Your task to perform on an android device: snooze an email in the gmail app Image 0: 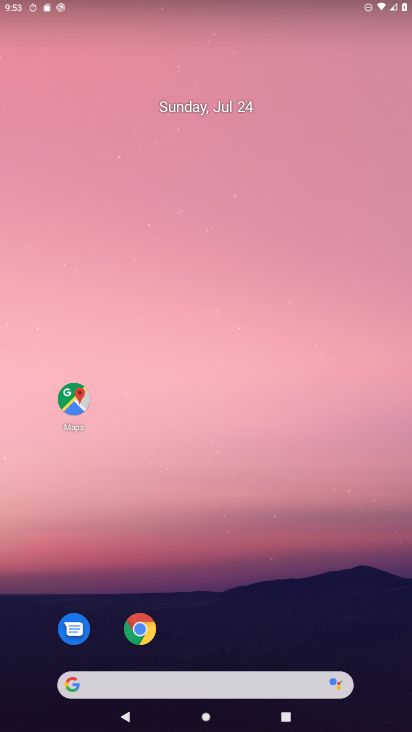
Step 0: drag from (189, 639) to (322, 20)
Your task to perform on an android device: snooze an email in the gmail app Image 1: 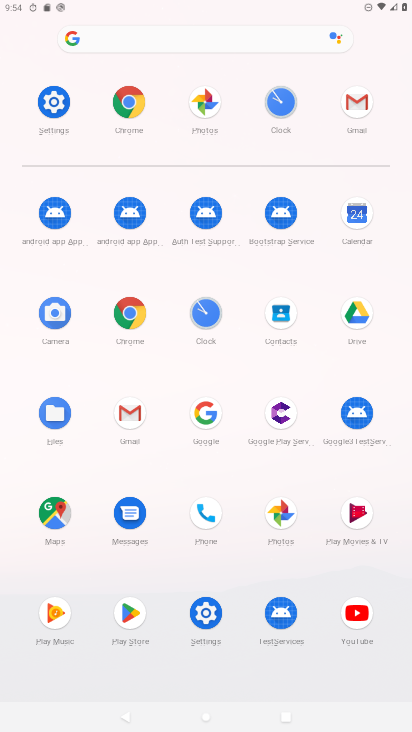
Step 1: click (133, 426)
Your task to perform on an android device: snooze an email in the gmail app Image 2: 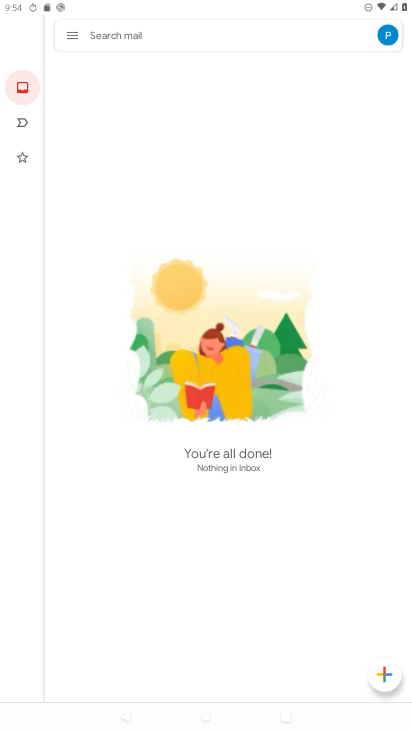
Step 2: click (75, 34)
Your task to perform on an android device: snooze an email in the gmail app Image 3: 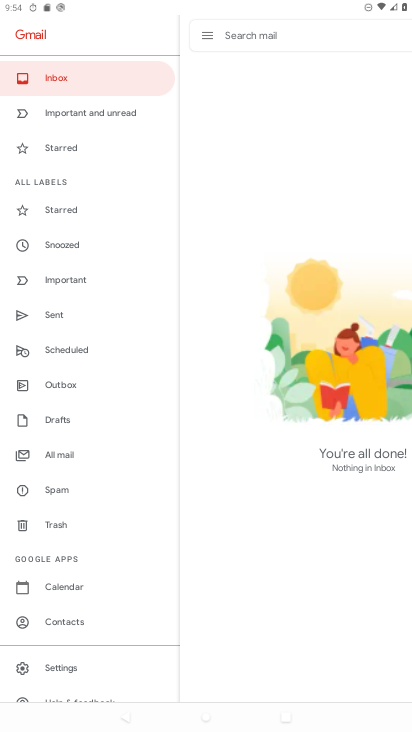
Step 3: click (80, 454)
Your task to perform on an android device: snooze an email in the gmail app Image 4: 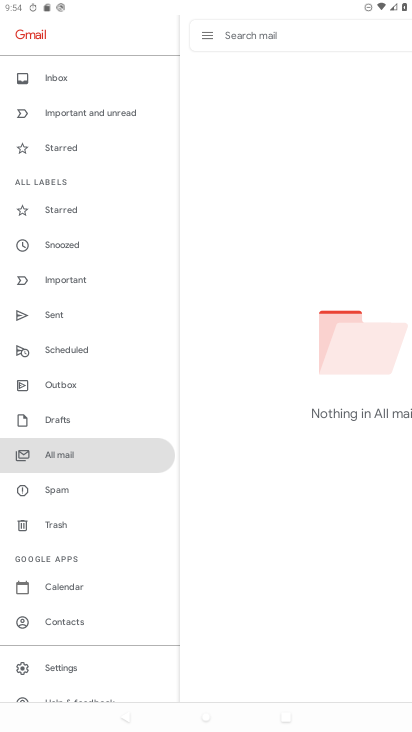
Step 4: task complete